Your task to perform on an android device: turn off notifications in google photos Image 0: 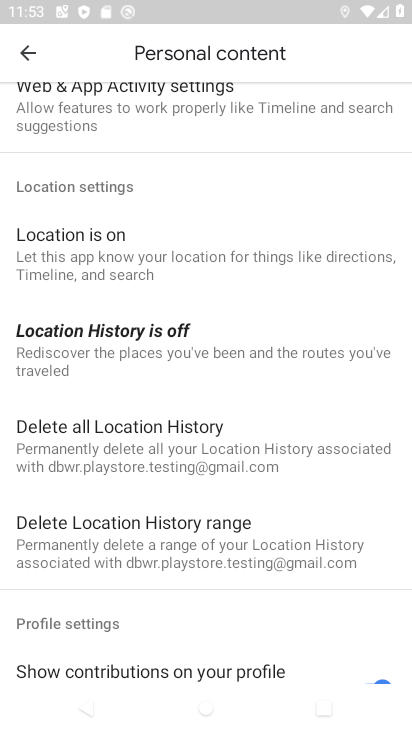
Step 0: press home button
Your task to perform on an android device: turn off notifications in google photos Image 1: 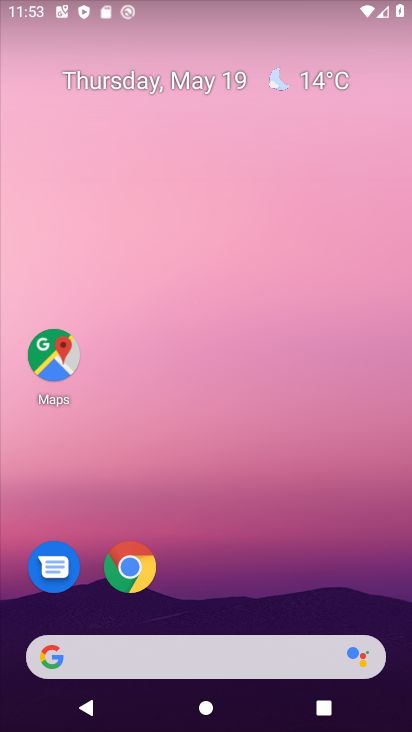
Step 1: drag from (318, 317) to (320, 41)
Your task to perform on an android device: turn off notifications in google photos Image 2: 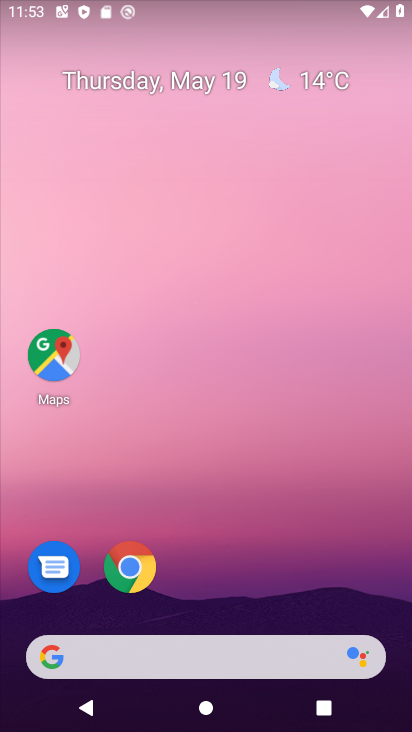
Step 2: drag from (342, 543) to (309, 13)
Your task to perform on an android device: turn off notifications in google photos Image 3: 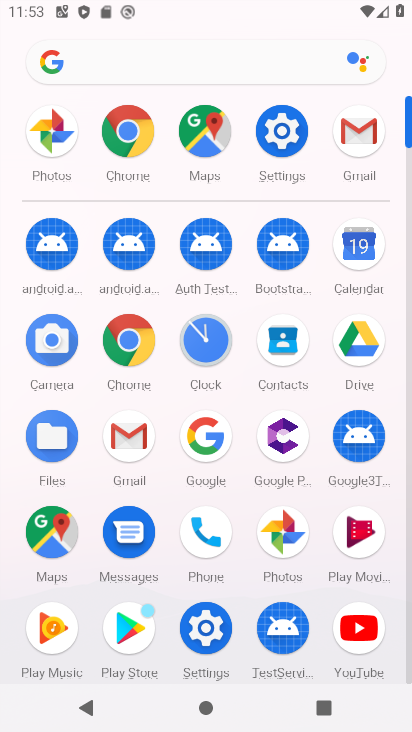
Step 3: click (44, 147)
Your task to perform on an android device: turn off notifications in google photos Image 4: 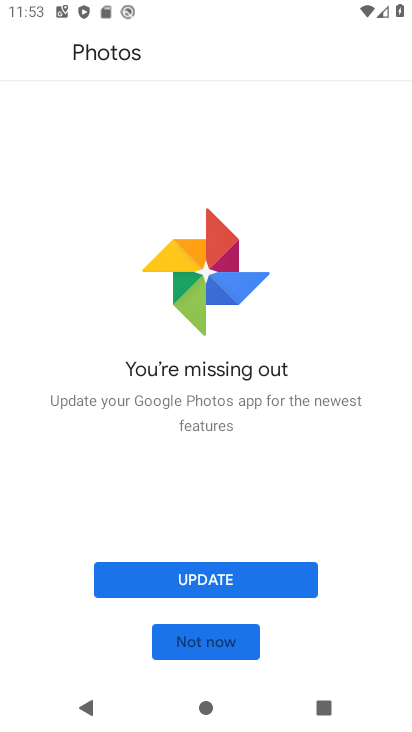
Step 4: click (201, 565)
Your task to perform on an android device: turn off notifications in google photos Image 5: 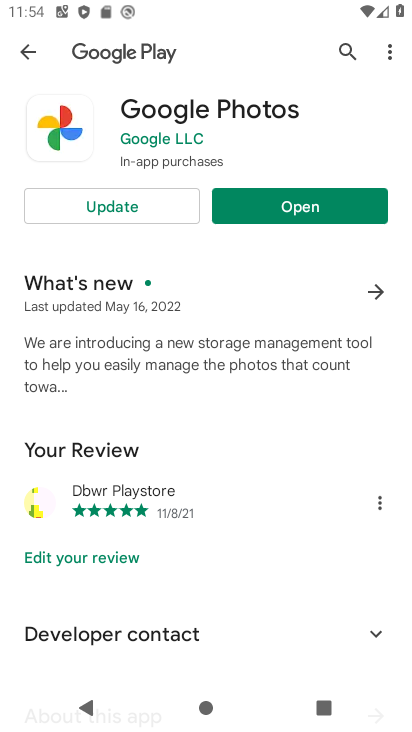
Step 5: click (117, 194)
Your task to perform on an android device: turn off notifications in google photos Image 6: 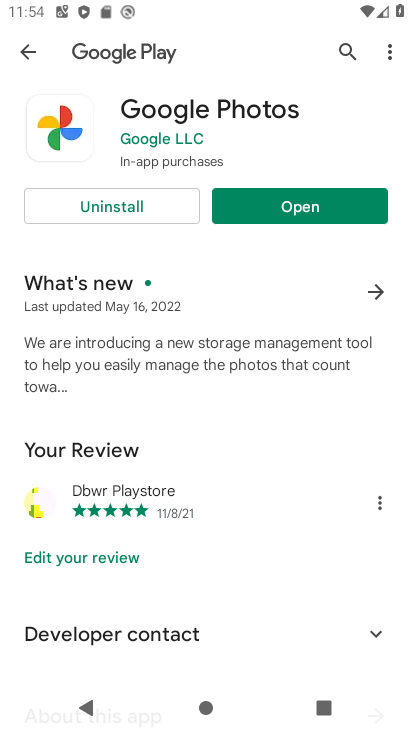
Step 6: click (299, 219)
Your task to perform on an android device: turn off notifications in google photos Image 7: 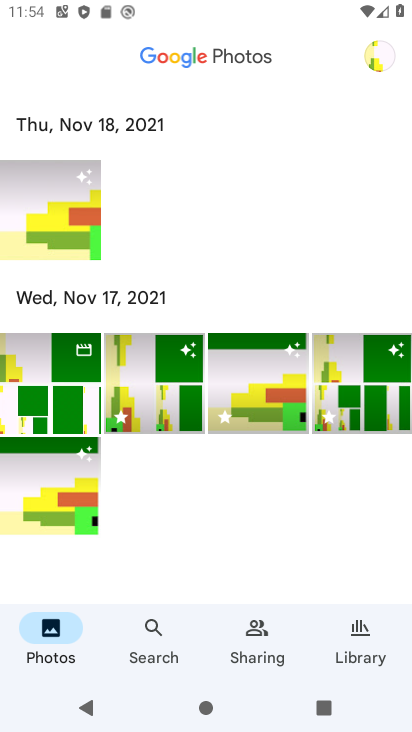
Step 7: click (385, 56)
Your task to perform on an android device: turn off notifications in google photos Image 8: 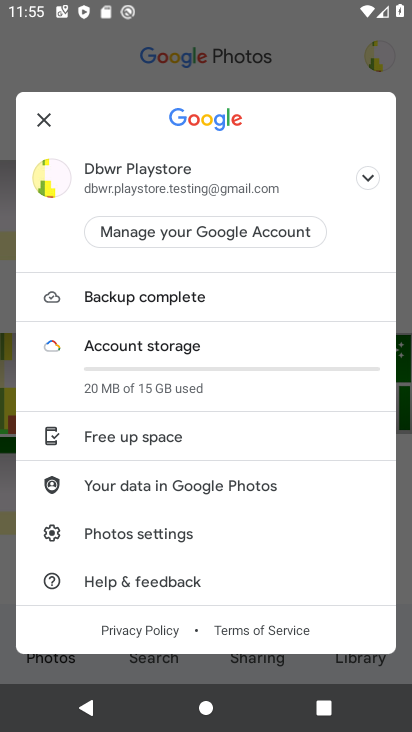
Step 8: drag from (179, 564) to (209, 206)
Your task to perform on an android device: turn off notifications in google photos Image 9: 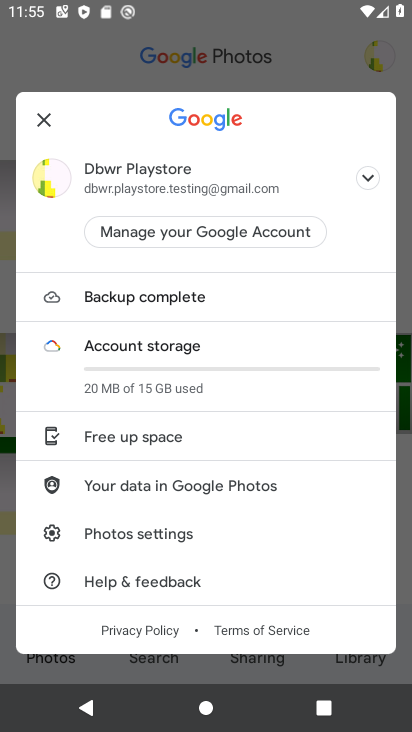
Step 9: click (114, 538)
Your task to perform on an android device: turn off notifications in google photos Image 10: 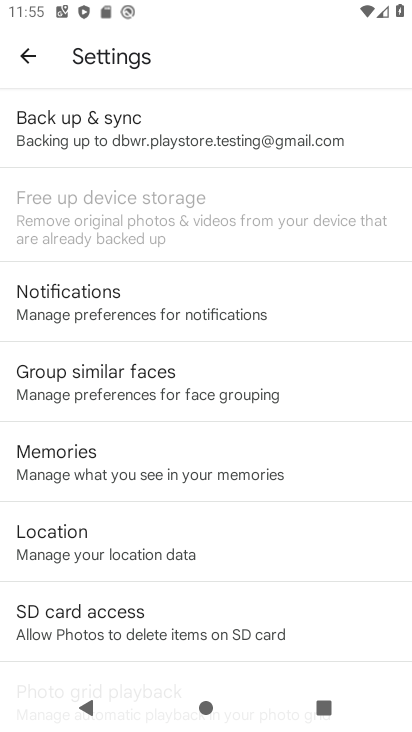
Step 10: click (83, 320)
Your task to perform on an android device: turn off notifications in google photos Image 11: 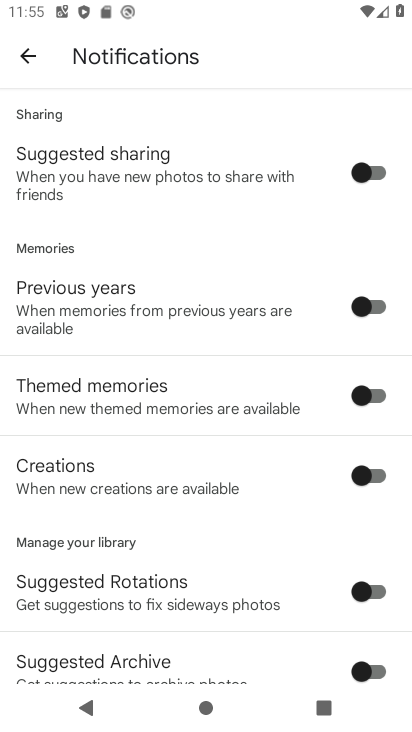
Step 11: drag from (157, 485) to (218, 80)
Your task to perform on an android device: turn off notifications in google photos Image 12: 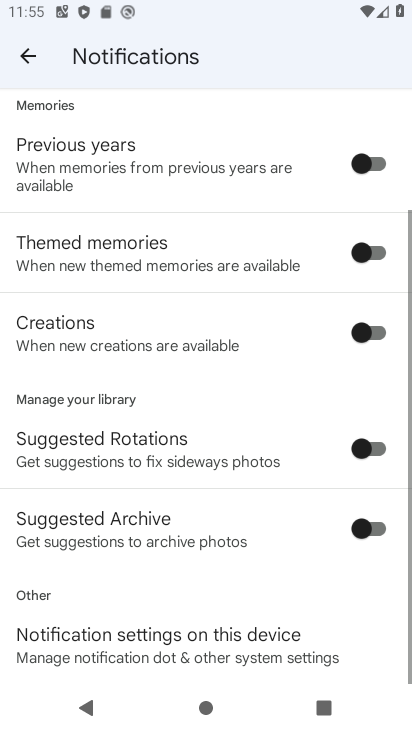
Step 12: drag from (222, 554) to (232, 220)
Your task to perform on an android device: turn off notifications in google photos Image 13: 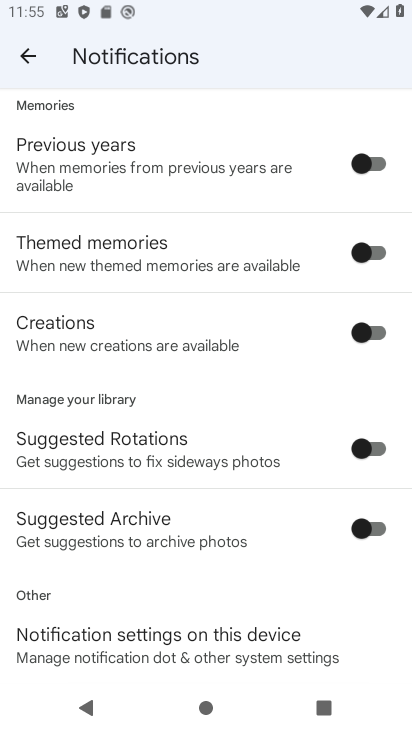
Step 13: click (141, 640)
Your task to perform on an android device: turn off notifications in google photos Image 14: 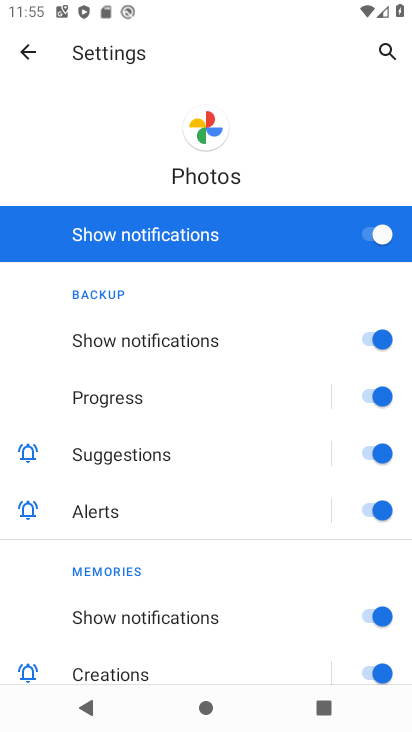
Step 14: click (374, 222)
Your task to perform on an android device: turn off notifications in google photos Image 15: 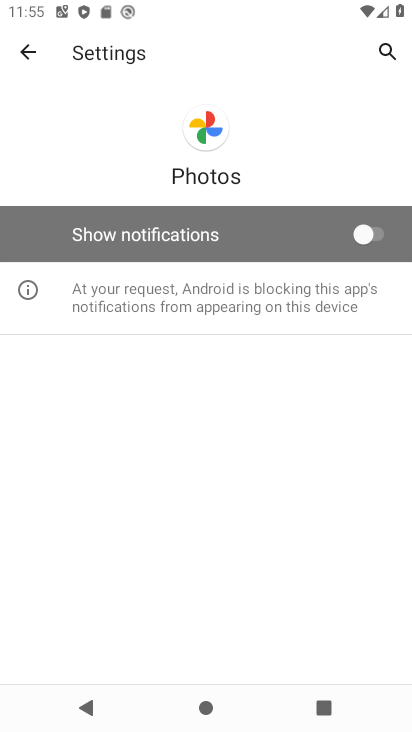
Step 15: task complete